Your task to perform on an android device: What's the weather going to be tomorrow? Image 0: 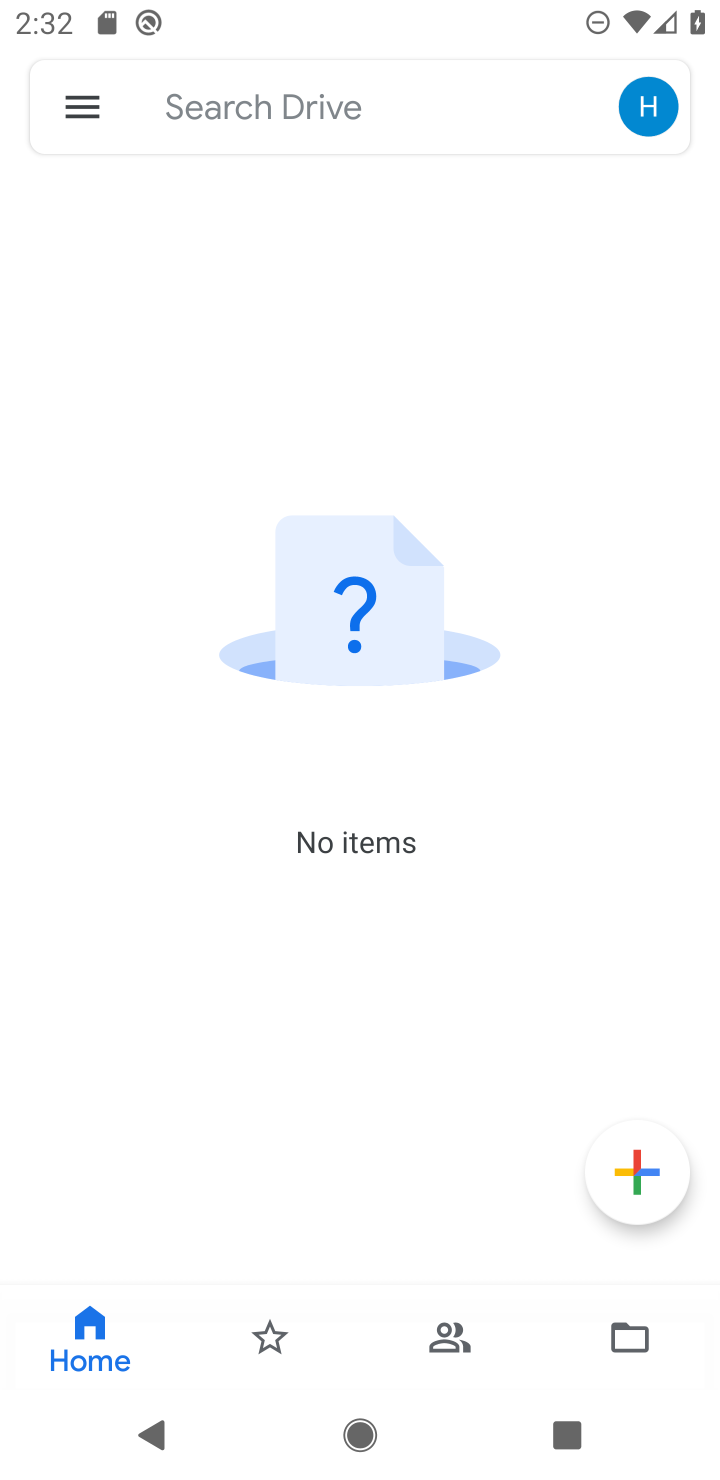
Step 0: press home button
Your task to perform on an android device: What's the weather going to be tomorrow? Image 1: 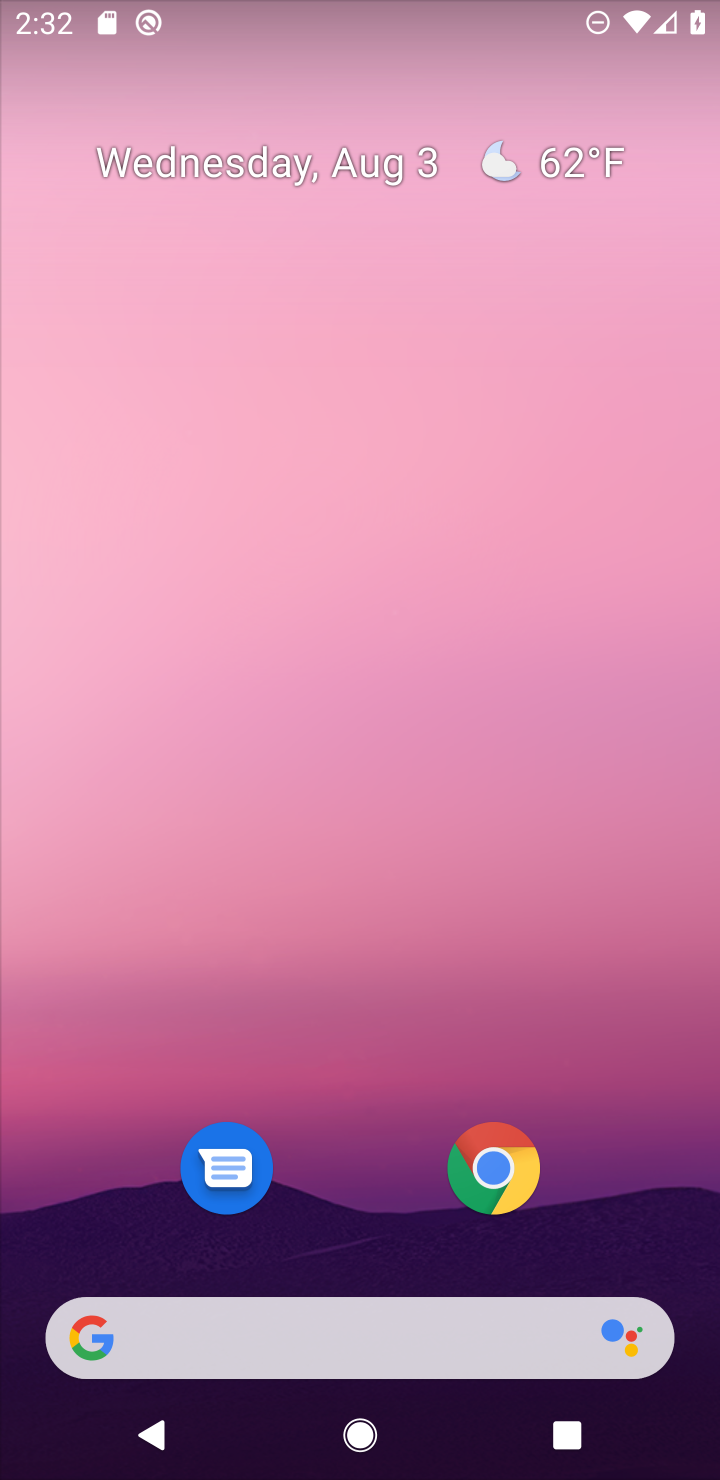
Step 1: click (560, 173)
Your task to perform on an android device: What's the weather going to be tomorrow? Image 2: 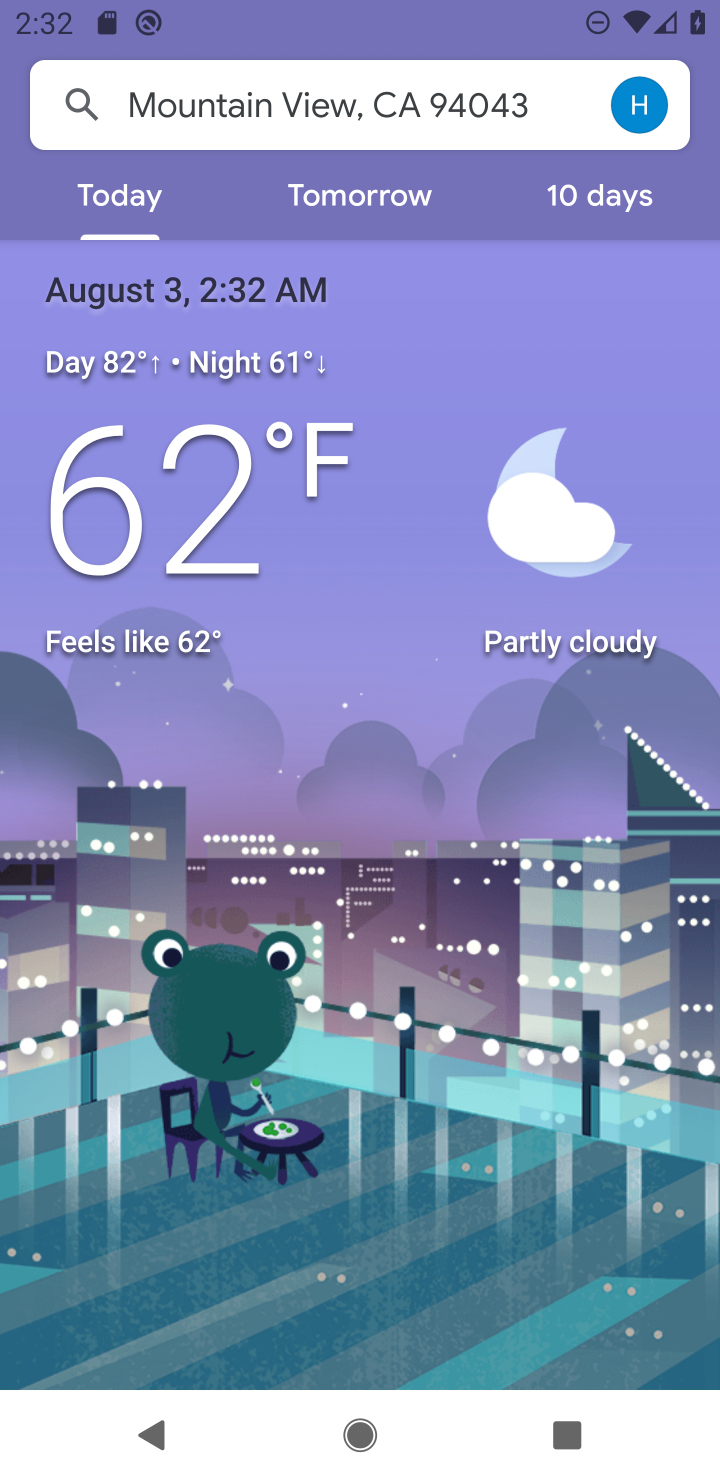
Step 2: click (425, 1184)
Your task to perform on an android device: What's the weather going to be tomorrow? Image 3: 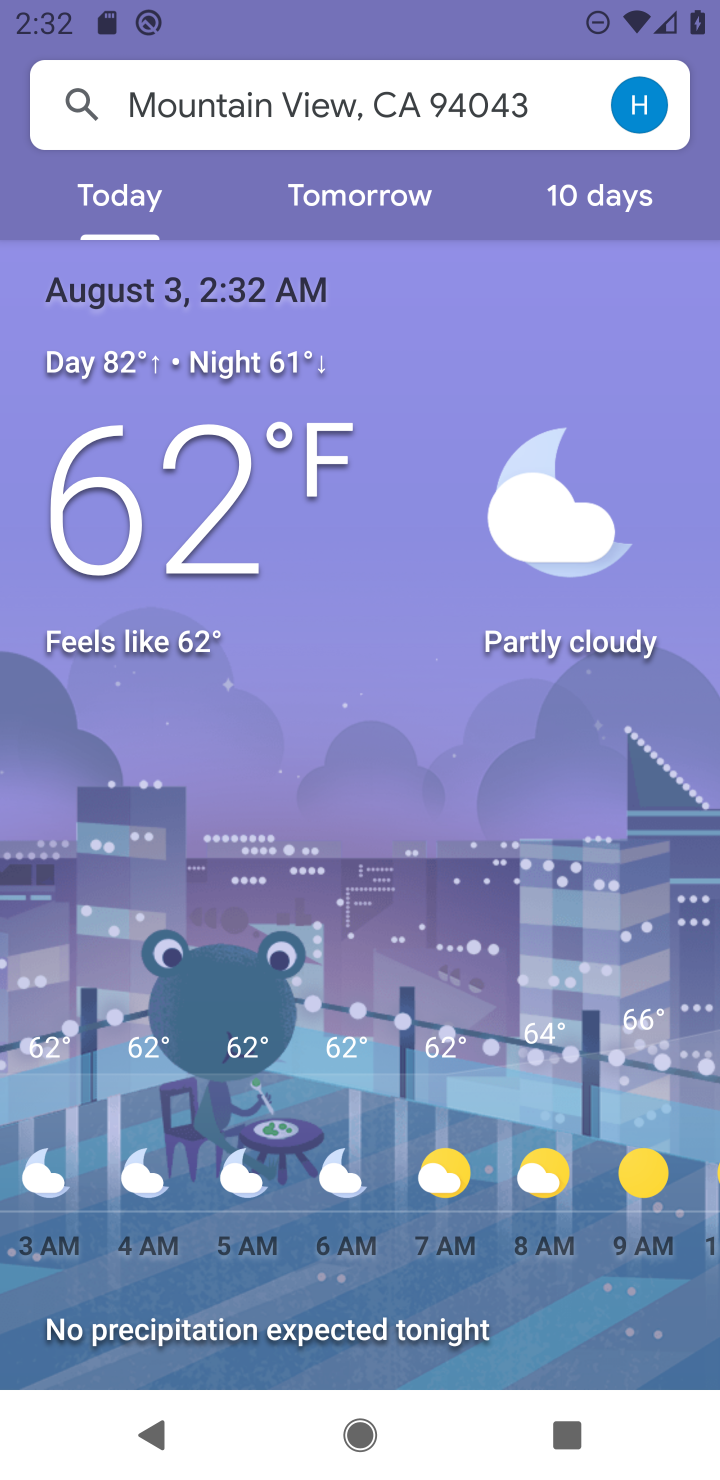
Step 3: click (370, 191)
Your task to perform on an android device: What's the weather going to be tomorrow? Image 4: 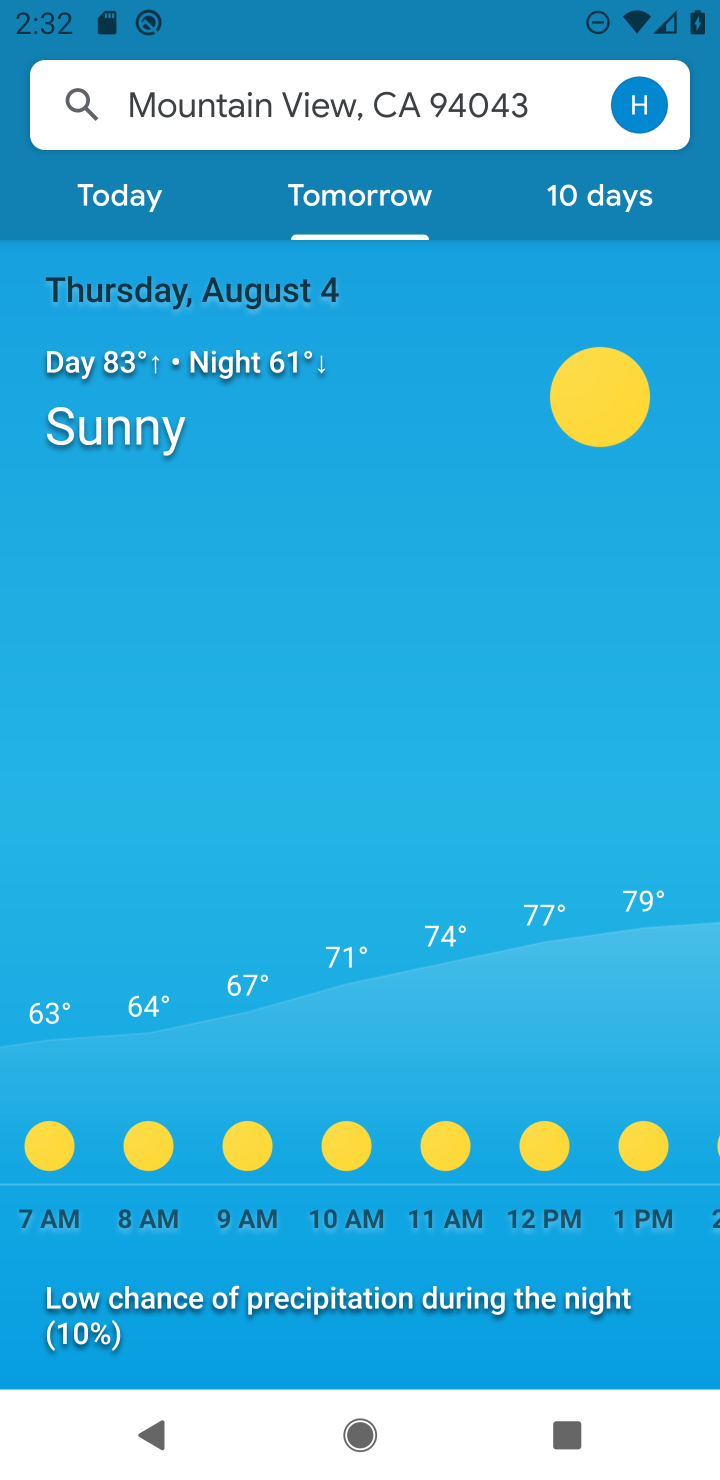
Step 4: task complete